Your task to perform on an android device: Go to sound settings Image 0: 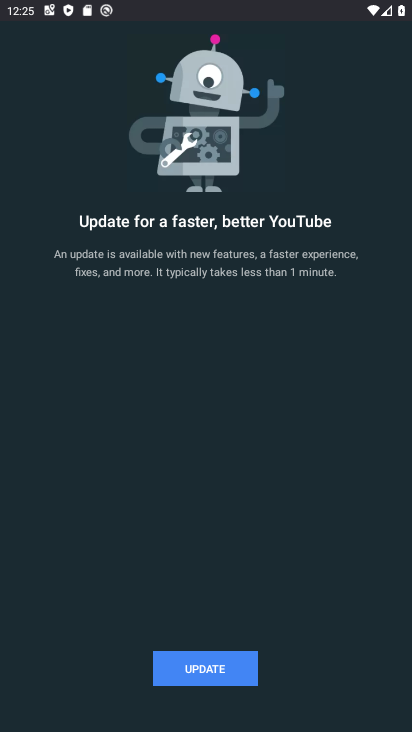
Step 0: press home button
Your task to perform on an android device: Go to sound settings Image 1: 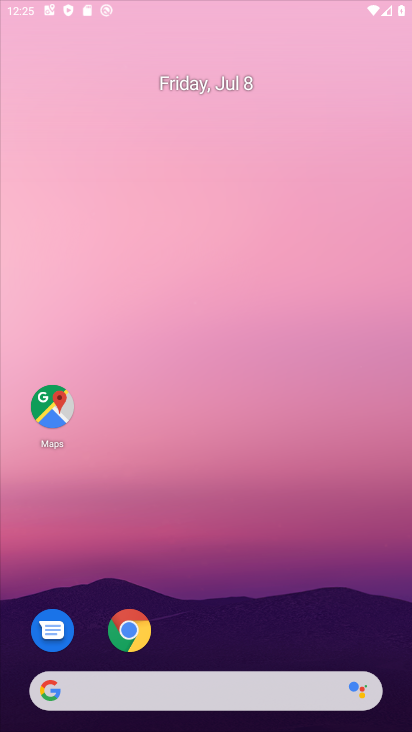
Step 1: drag from (369, 651) to (281, 29)
Your task to perform on an android device: Go to sound settings Image 2: 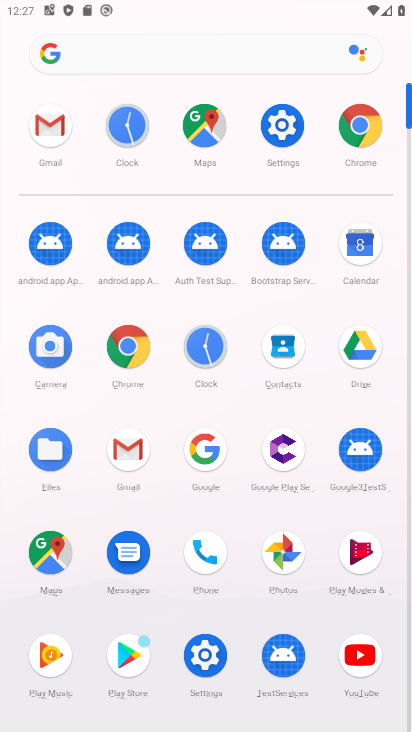
Step 2: click (201, 658)
Your task to perform on an android device: Go to sound settings Image 3: 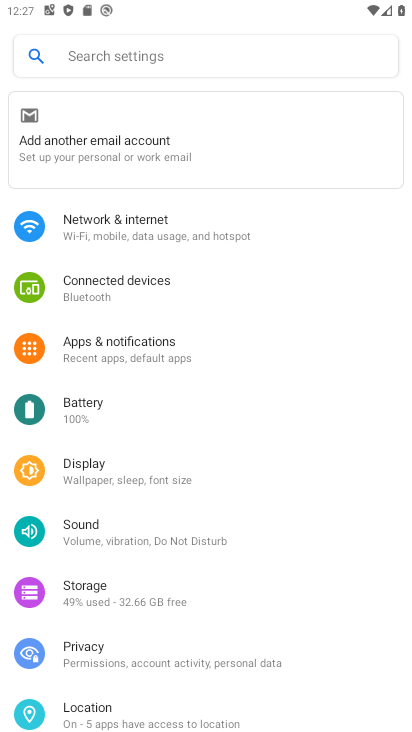
Step 3: click (85, 542)
Your task to perform on an android device: Go to sound settings Image 4: 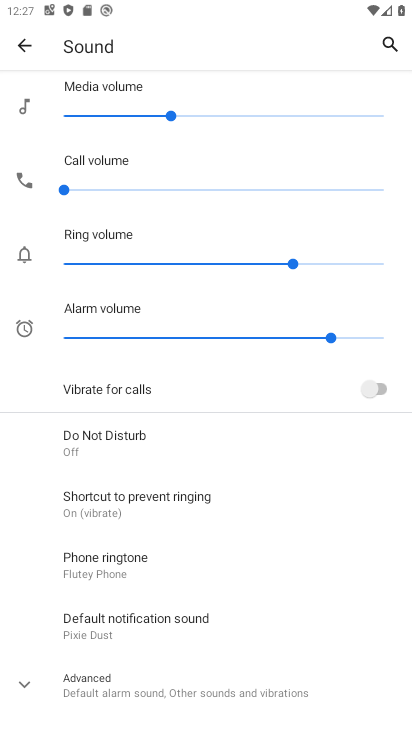
Step 4: task complete